Your task to perform on an android device: change the upload size in google photos Image 0: 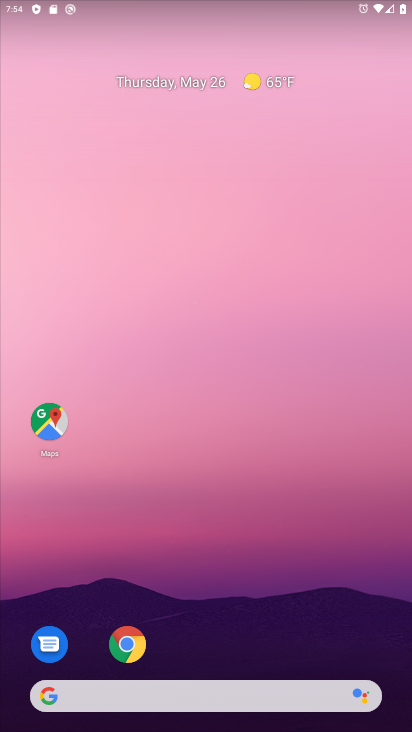
Step 0: drag from (176, 672) to (315, 37)
Your task to perform on an android device: change the upload size in google photos Image 1: 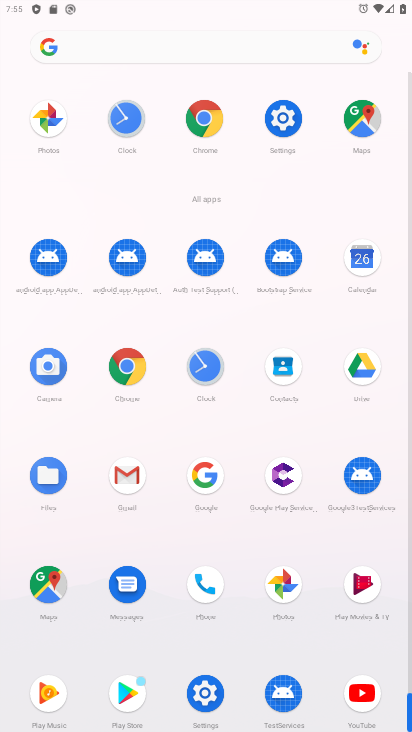
Step 1: click (280, 577)
Your task to perform on an android device: change the upload size in google photos Image 2: 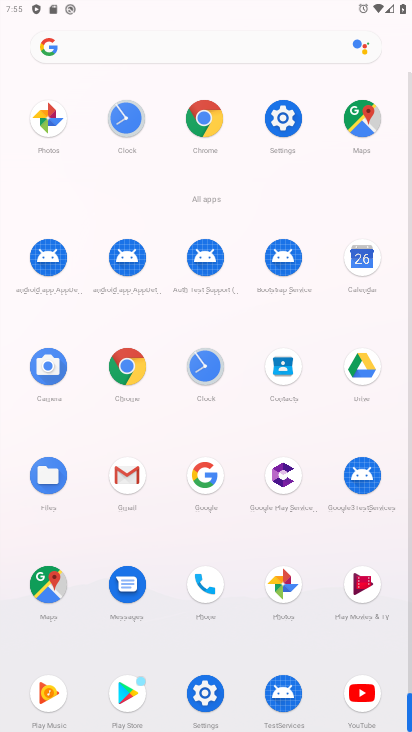
Step 2: click (279, 577)
Your task to perform on an android device: change the upload size in google photos Image 3: 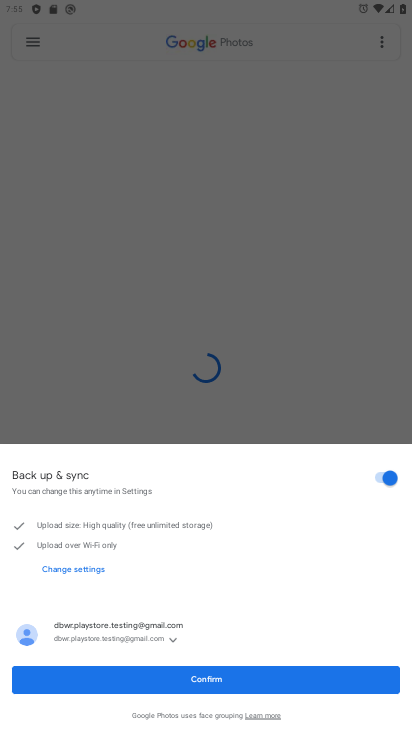
Step 3: click (173, 677)
Your task to perform on an android device: change the upload size in google photos Image 4: 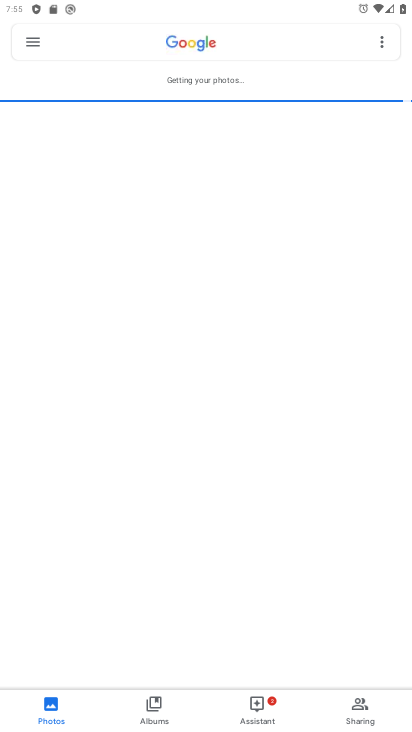
Step 4: click (21, 55)
Your task to perform on an android device: change the upload size in google photos Image 5: 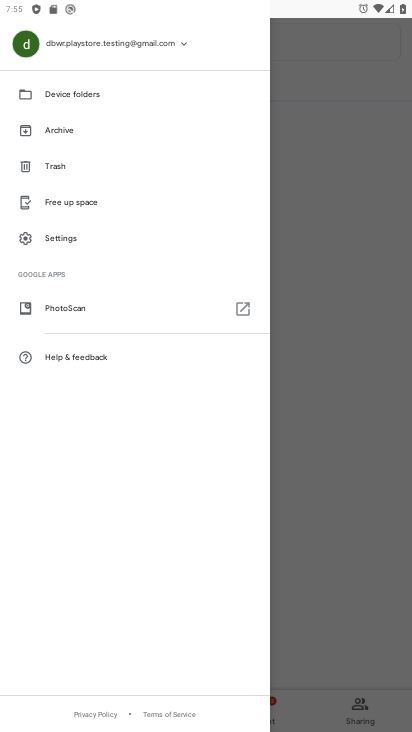
Step 5: click (64, 243)
Your task to perform on an android device: change the upload size in google photos Image 6: 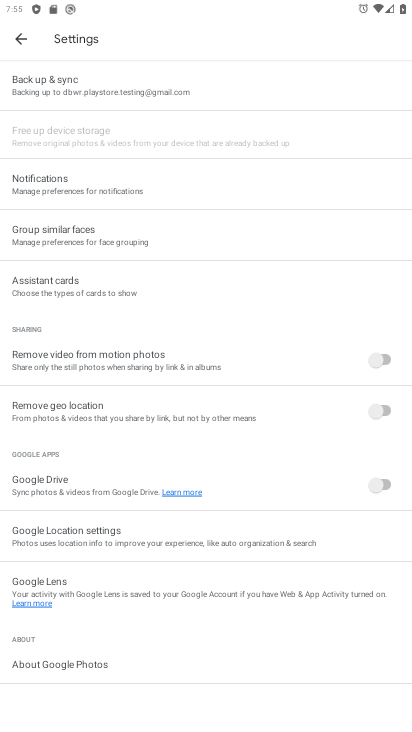
Step 6: drag from (233, 536) to (308, 188)
Your task to perform on an android device: change the upload size in google photos Image 7: 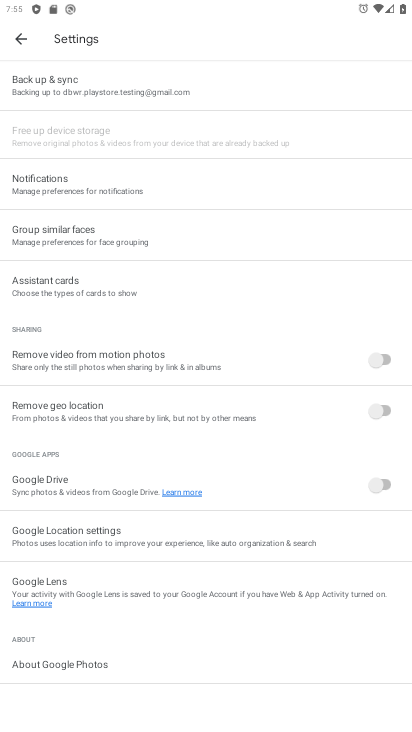
Step 7: drag from (160, 590) to (227, 200)
Your task to perform on an android device: change the upload size in google photos Image 8: 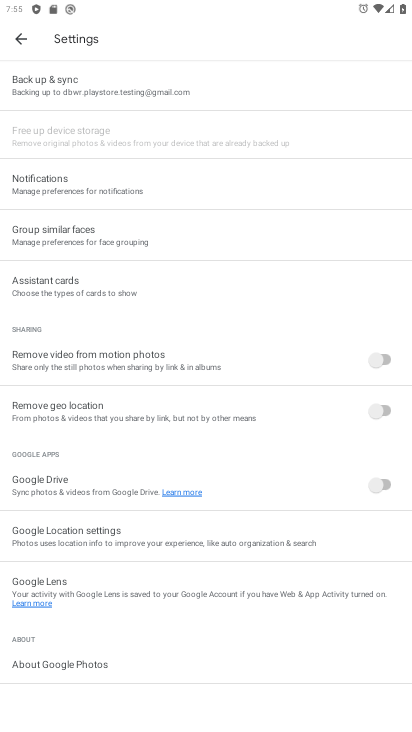
Step 8: drag from (175, 628) to (242, 311)
Your task to perform on an android device: change the upload size in google photos Image 9: 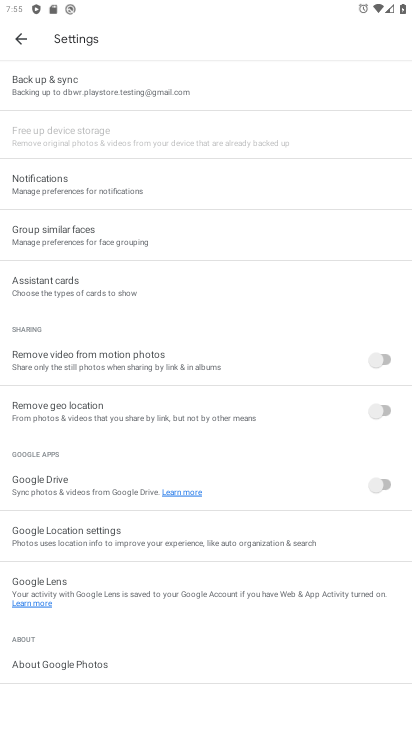
Step 9: click (149, 109)
Your task to perform on an android device: change the upload size in google photos Image 10: 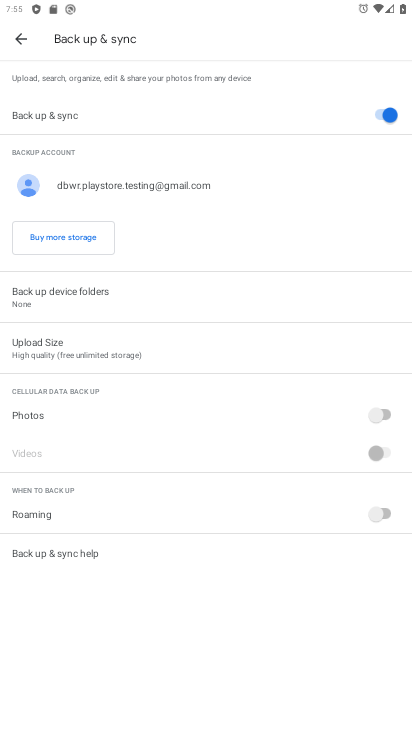
Step 10: drag from (210, 520) to (263, 115)
Your task to perform on an android device: change the upload size in google photos Image 11: 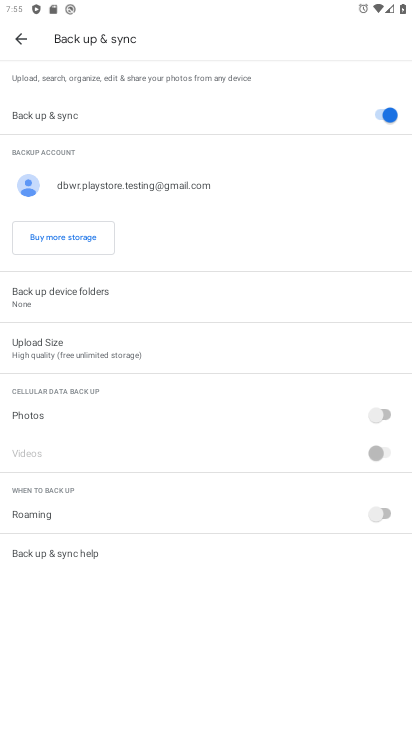
Step 11: click (169, 349)
Your task to perform on an android device: change the upload size in google photos Image 12: 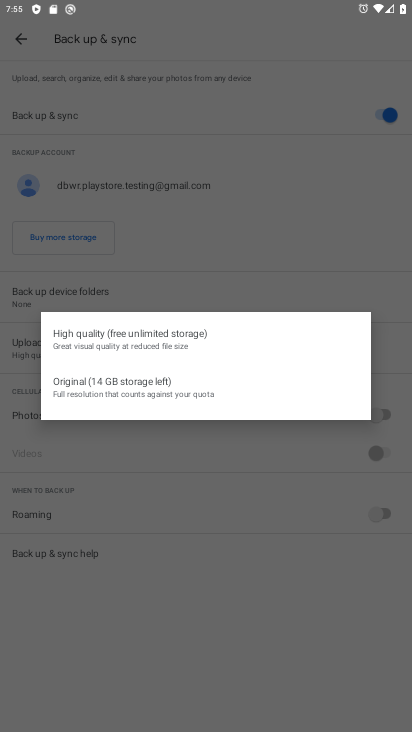
Step 12: click (127, 340)
Your task to perform on an android device: change the upload size in google photos Image 13: 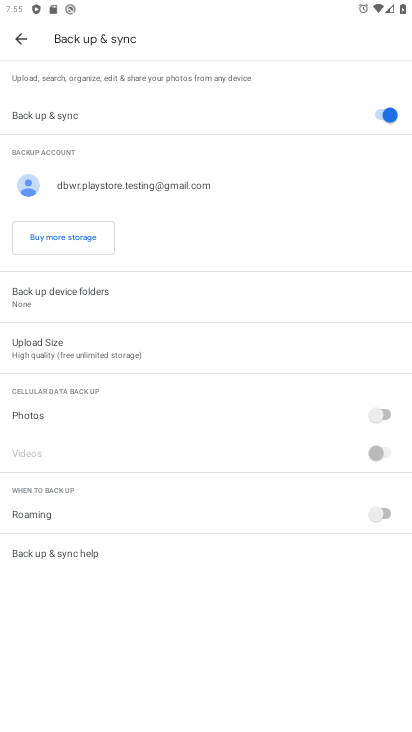
Step 13: task complete